Your task to perform on an android device: visit the assistant section in the google photos Image 0: 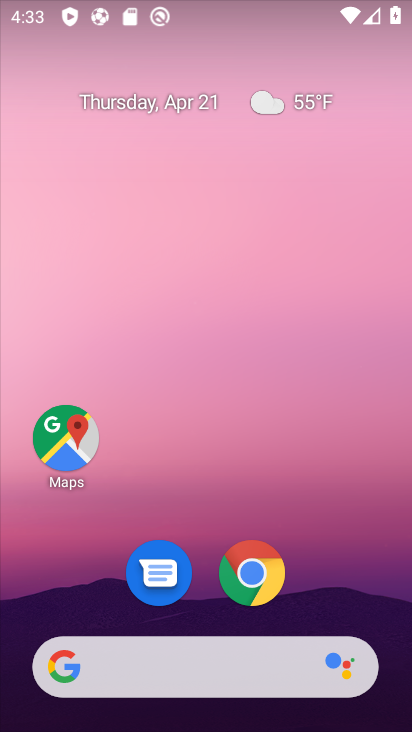
Step 0: drag from (374, 590) to (341, 180)
Your task to perform on an android device: visit the assistant section in the google photos Image 1: 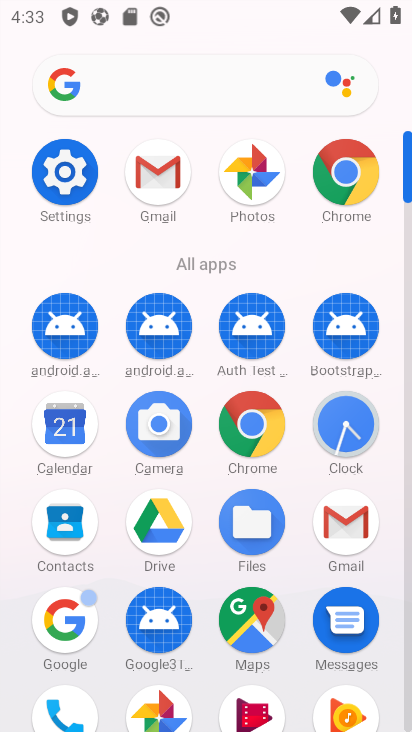
Step 1: click (261, 193)
Your task to perform on an android device: visit the assistant section in the google photos Image 2: 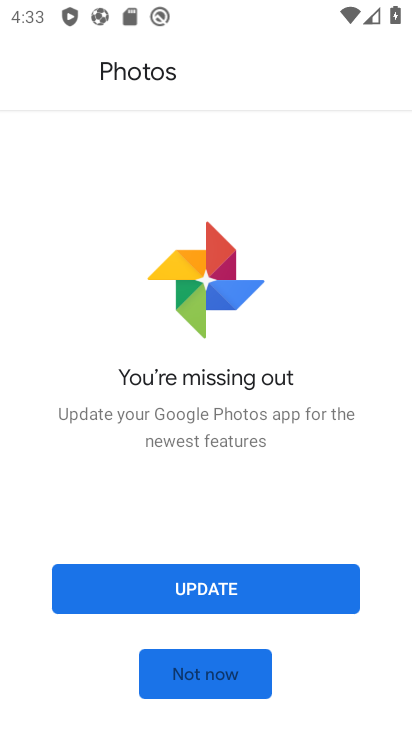
Step 2: click (250, 591)
Your task to perform on an android device: visit the assistant section in the google photos Image 3: 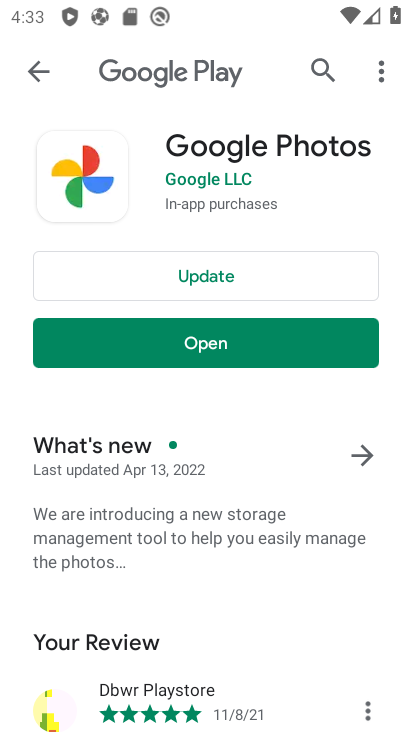
Step 3: click (226, 283)
Your task to perform on an android device: visit the assistant section in the google photos Image 4: 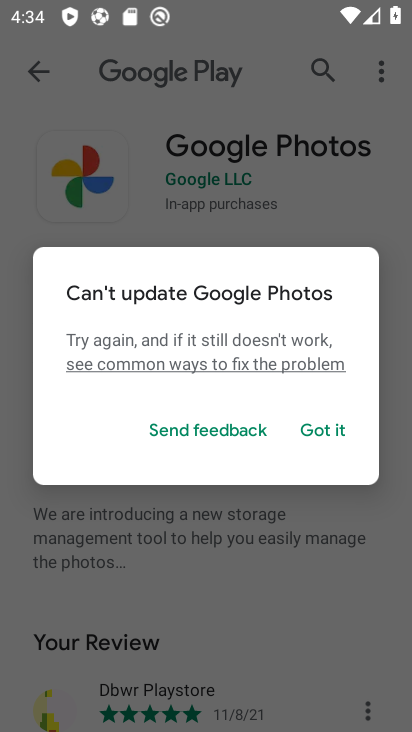
Step 4: click (332, 438)
Your task to perform on an android device: visit the assistant section in the google photos Image 5: 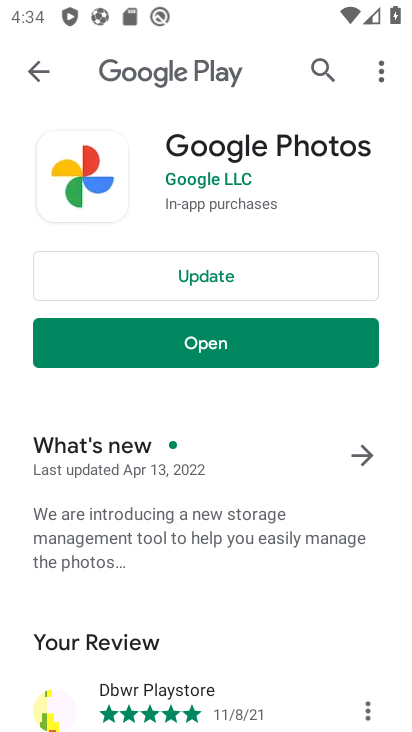
Step 5: click (258, 277)
Your task to perform on an android device: visit the assistant section in the google photos Image 6: 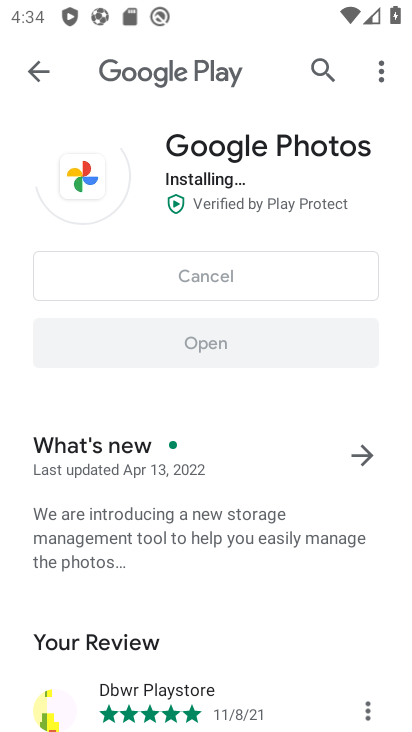
Step 6: click (254, 274)
Your task to perform on an android device: visit the assistant section in the google photos Image 7: 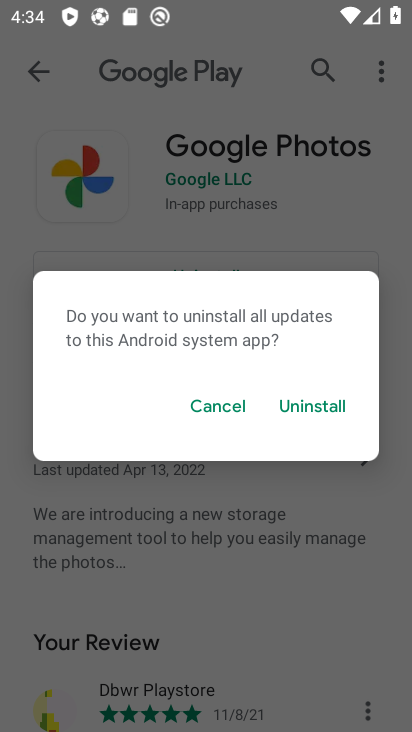
Step 7: click (219, 409)
Your task to perform on an android device: visit the assistant section in the google photos Image 8: 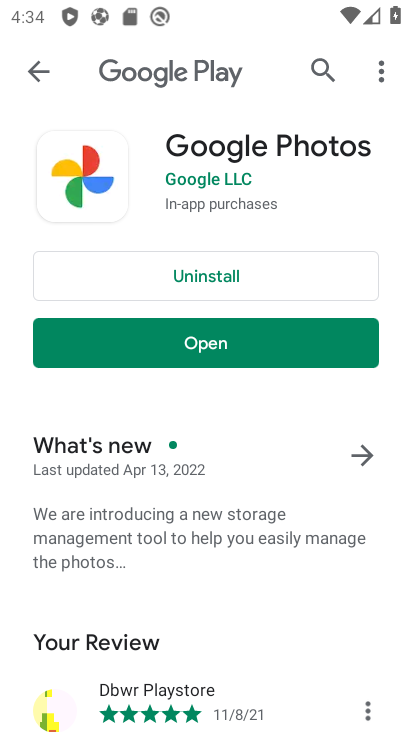
Step 8: click (248, 356)
Your task to perform on an android device: visit the assistant section in the google photos Image 9: 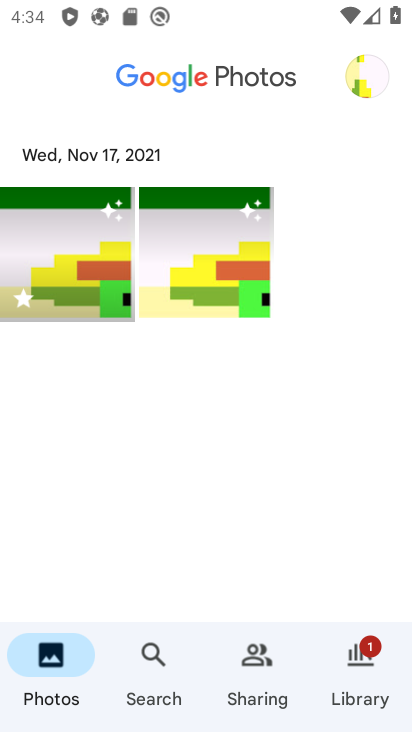
Step 9: click (342, 664)
Your task to perform on an android device: visit the assistant section in the google photos Image 10: 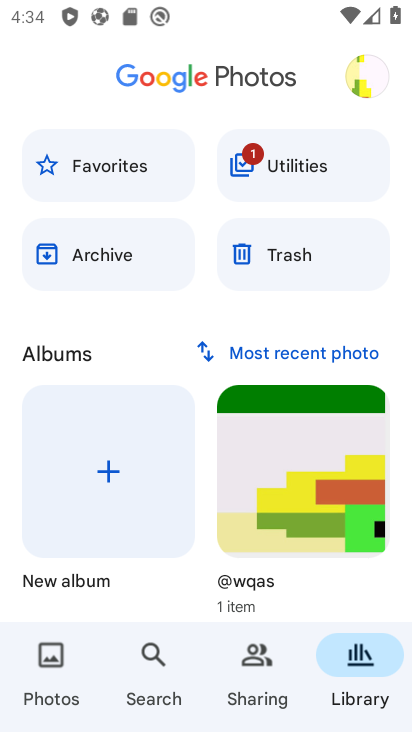
Step 10: click (285, 656)
Your task to perform on an android device: visit the assistant section in the google photos Image 11: 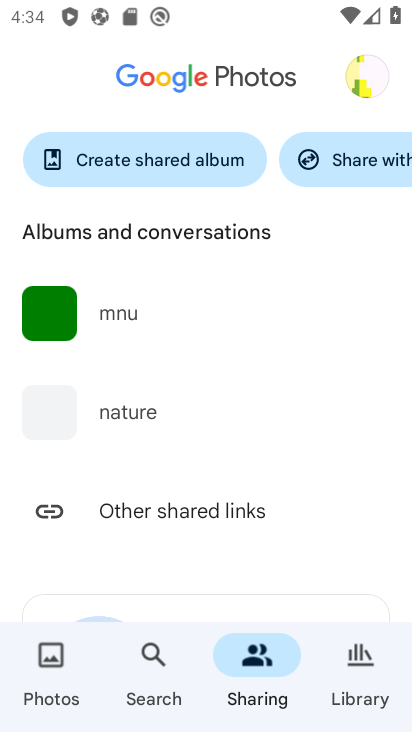
Step 11: click (181, 664)
Your task to perform on an android device: visit the assistant section in the google photos Image 12: 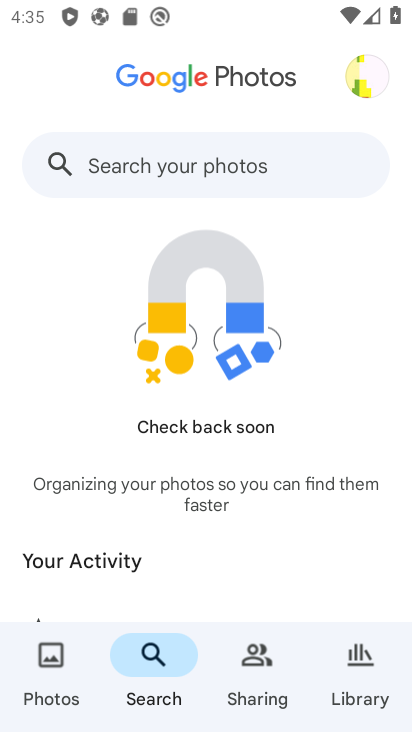
Step 12: task complete